Your task to perform on an android device: Show the shopping cart on walmart. Add macbook pro 13 inch to the cart on walmart Image 0: 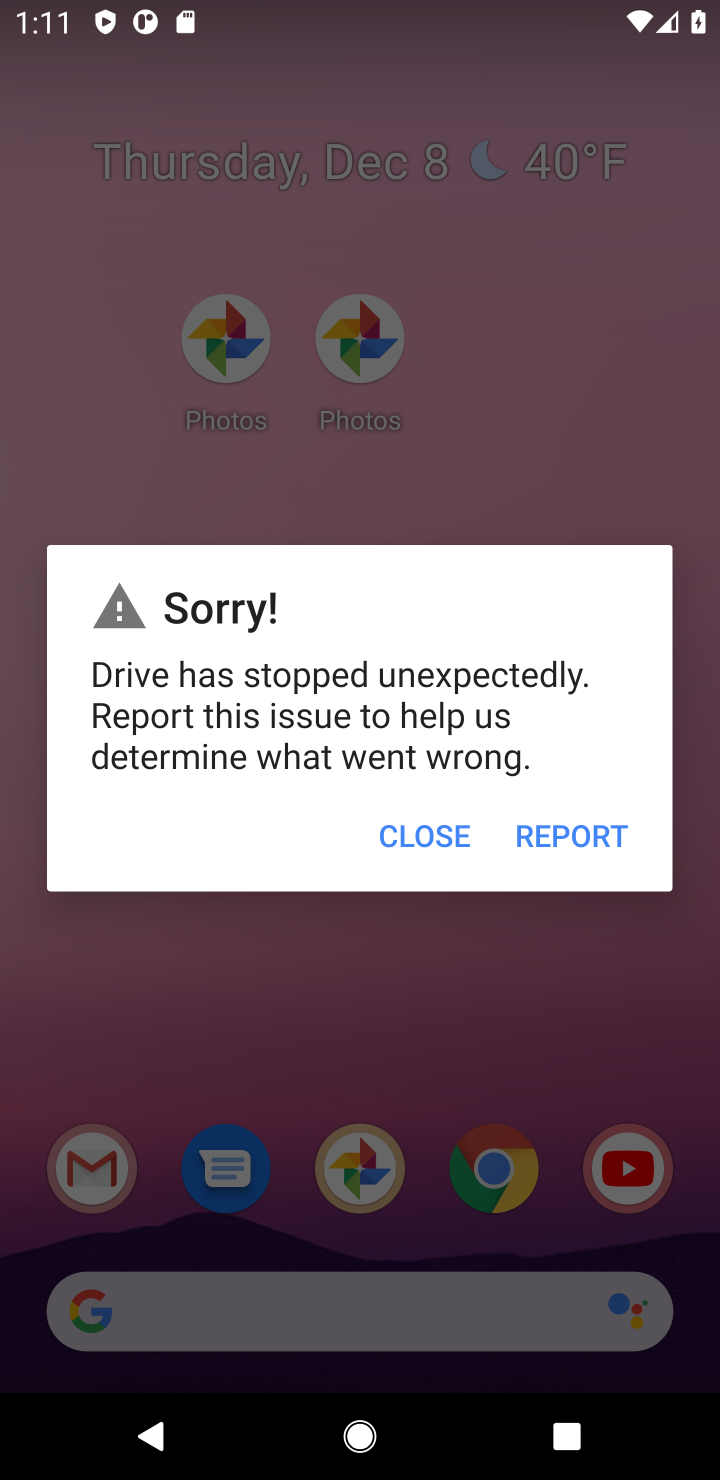
Step 0: click (416, 833)
Your task to perform on an android device: Show the shopping cart on walmart. Add macbook pro 13 inch to the cart on walmart Image 1: 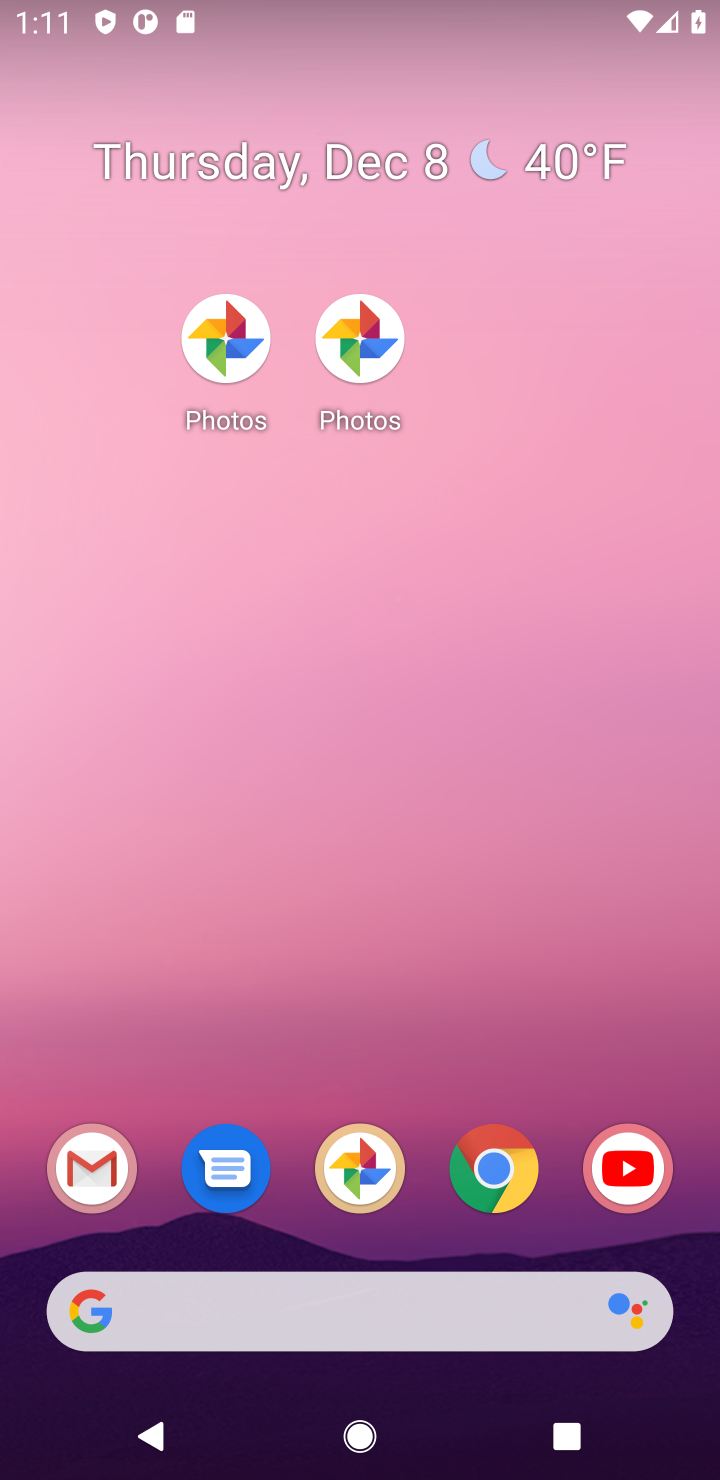
Step 1: drag from (362, 893) to (364, 310)
Your task to perform on an android device: Show the shopping cart on walmart. Add macbook pro 13 inch to the cart on walmart Image 2: 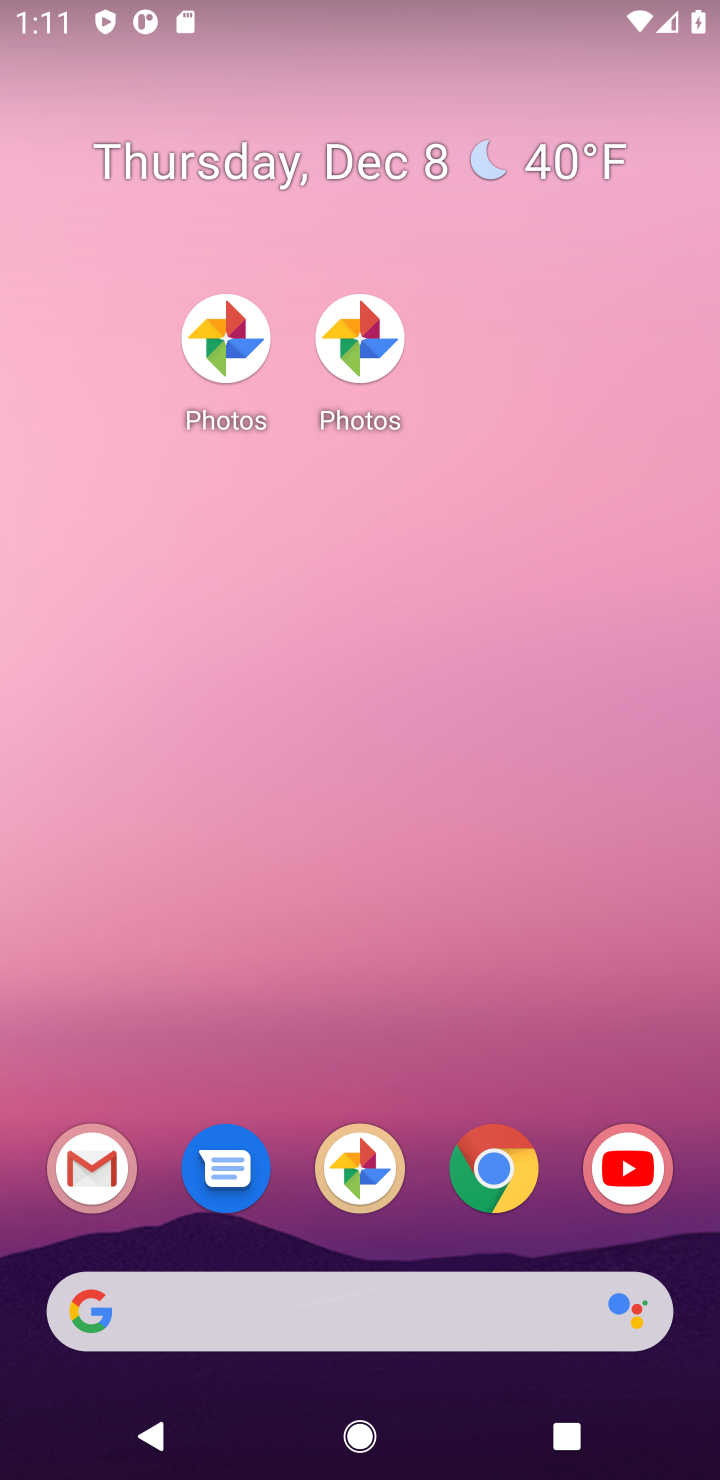
Step 2: drag from (292, 843) to (224, 299)
Your task to perform on an android device: Show the shopping cart on walmart. Add macbook pro 13 inch to the cart on walmart Image 3: 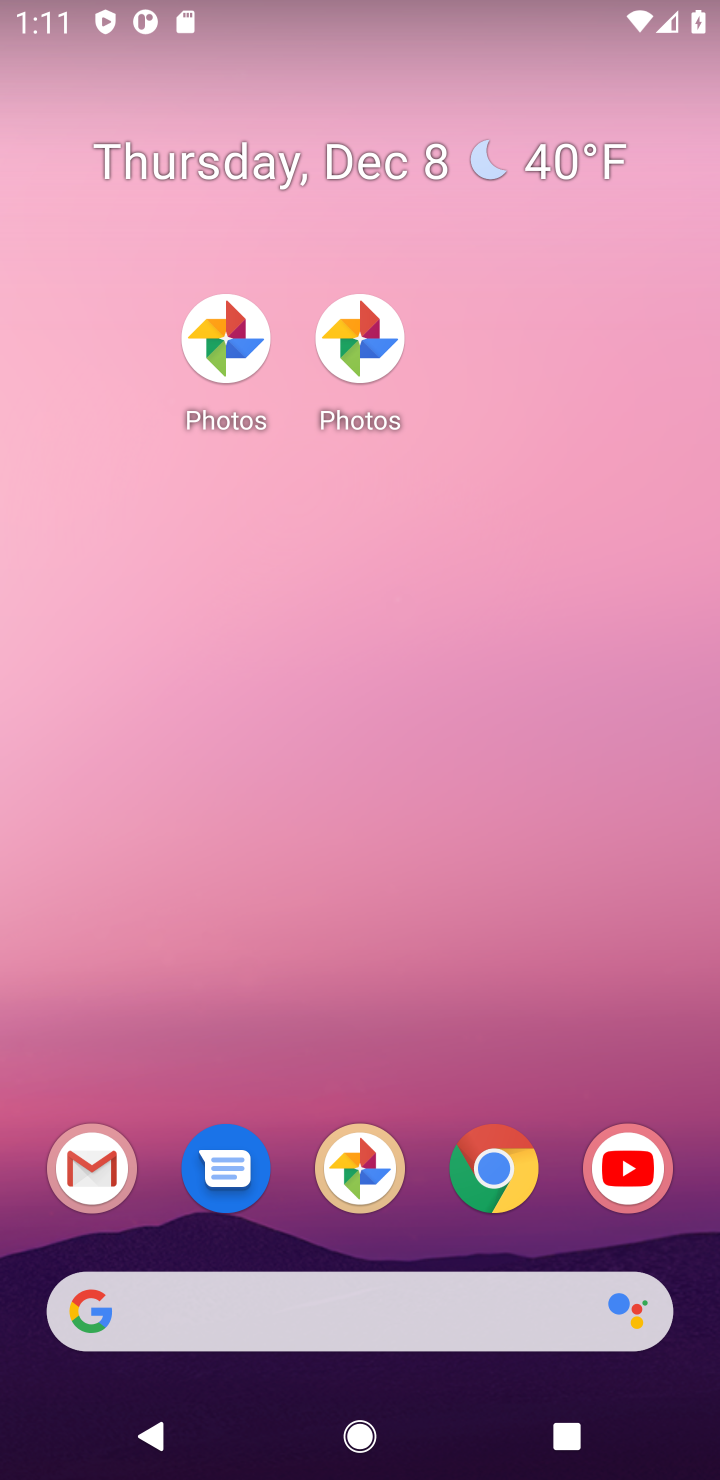
Step 3: drag from (289, 1136) to (277, 129)
Your task to perform on an android device: Show the shopping cart on walmart. Add macbook pro 13 inch to the cart on walmart Image 4: 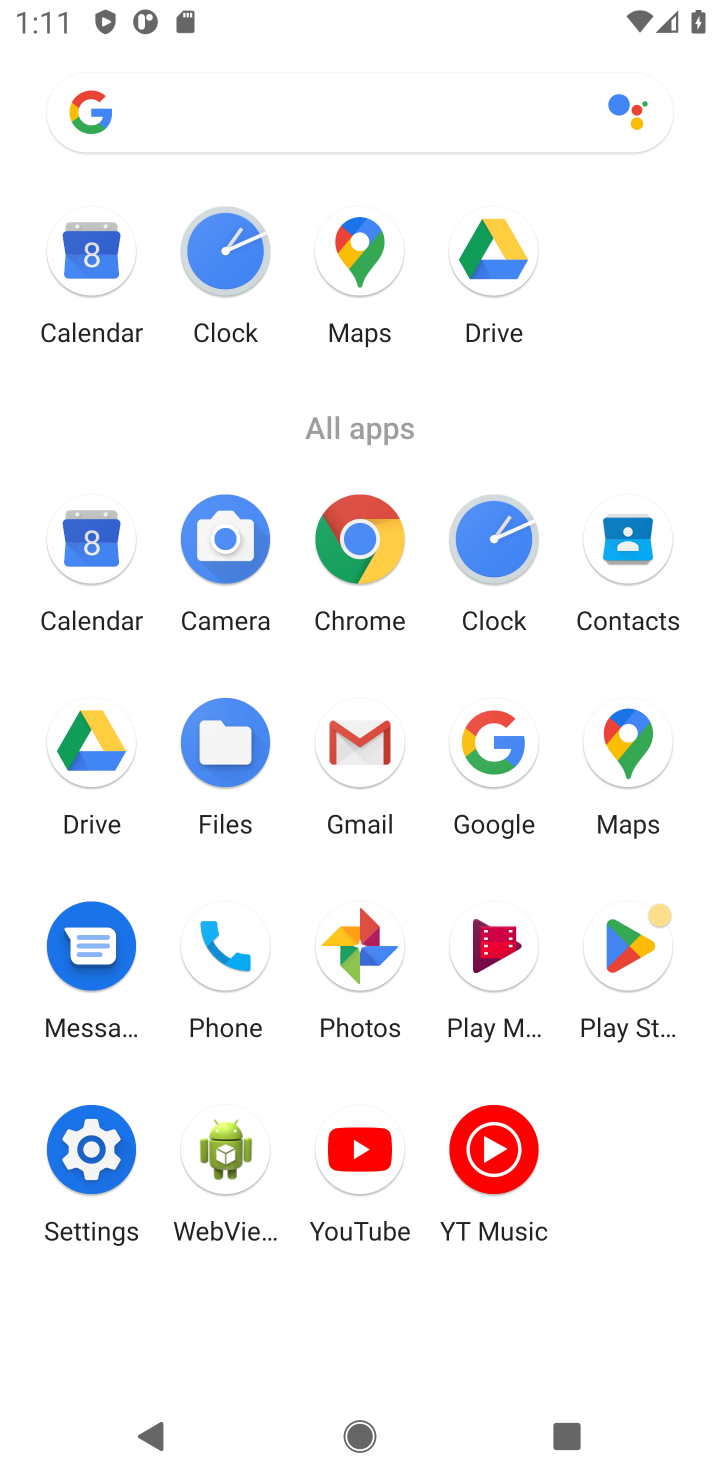
Step 4: click (496, 740)
Your task to perform on an android device: Show the shopping cart on walmart. Add macbook pro 13 inch to the cart on walmart Image 5: 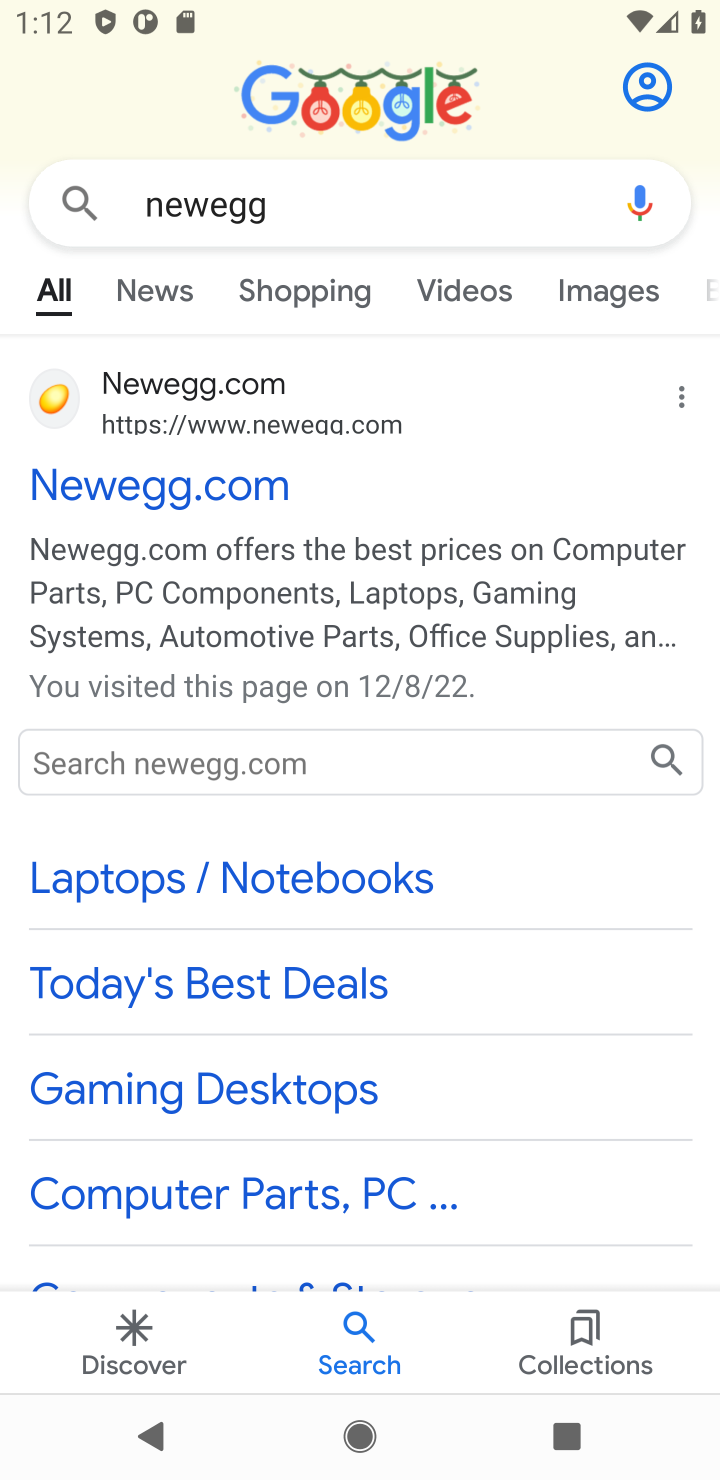
Step 5: click (206, 211)
Your task to perform on an android device: Show the shopping cart on walmart. Add macbook pro 13 inch to the cart on walmart Image 6: 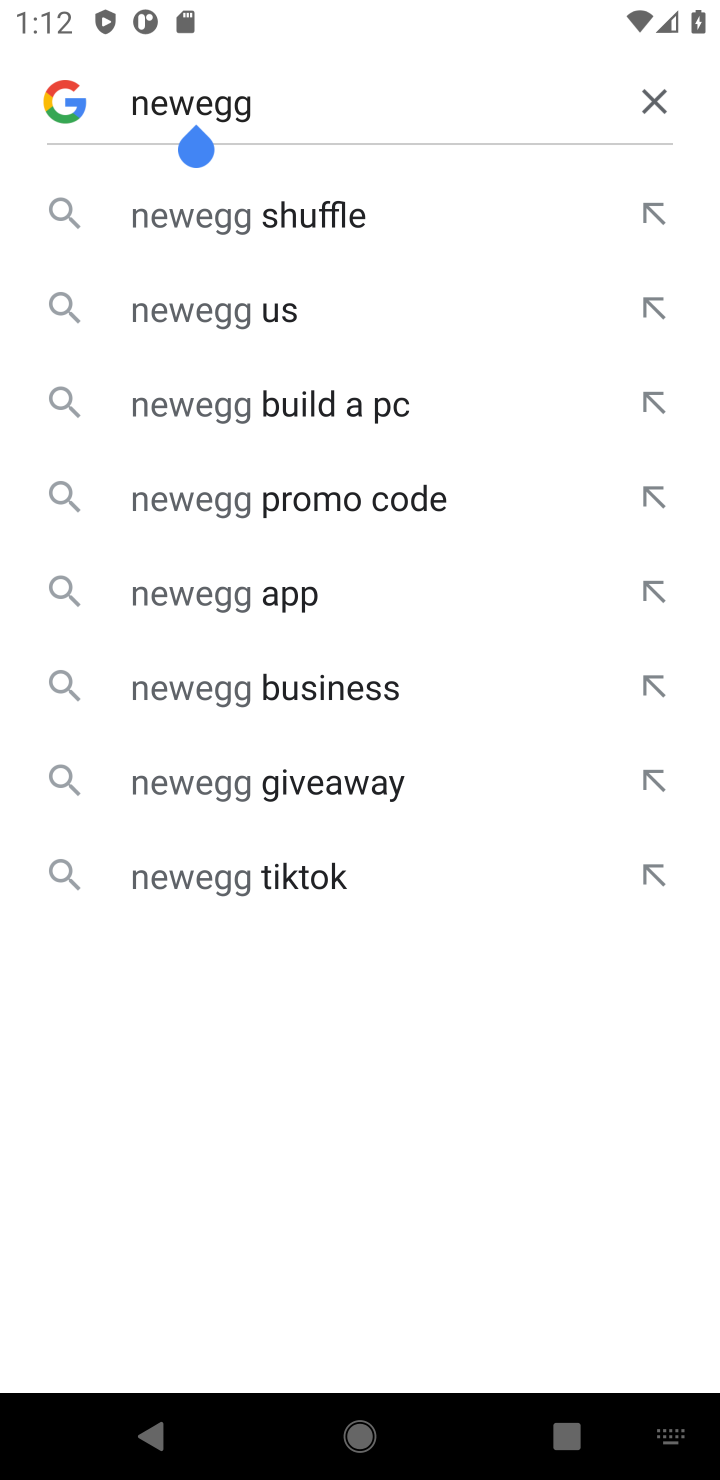
Step 6: click (642, 101)
Your task to perform on an android device: Show the shopping cart on walmart. Add macbook pro 13 inch to the cart on walmart Image 7: 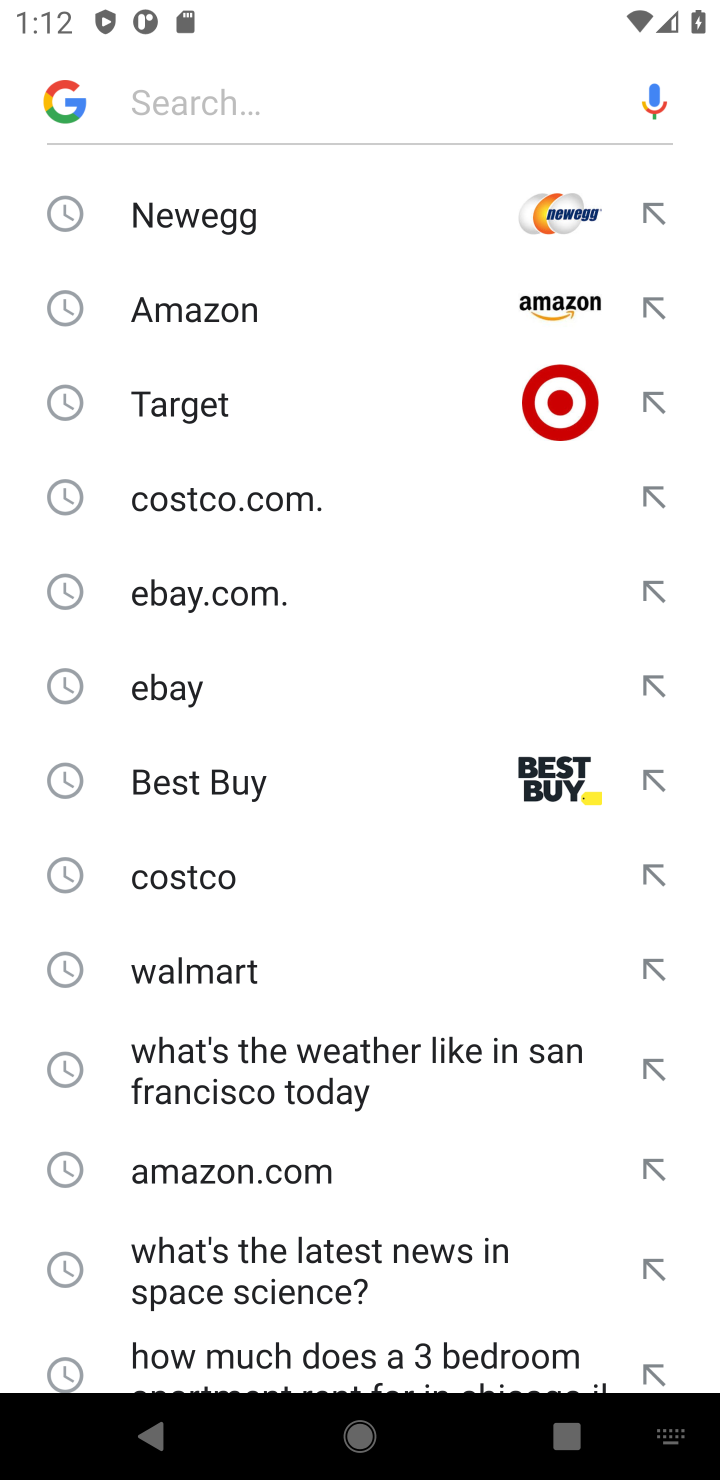
Step 7: click (222, 968)
Your task to perform on an android device: Show the shopping cart on walmart. Add macbook pro 13 inch to the cart on walmart Image 8: 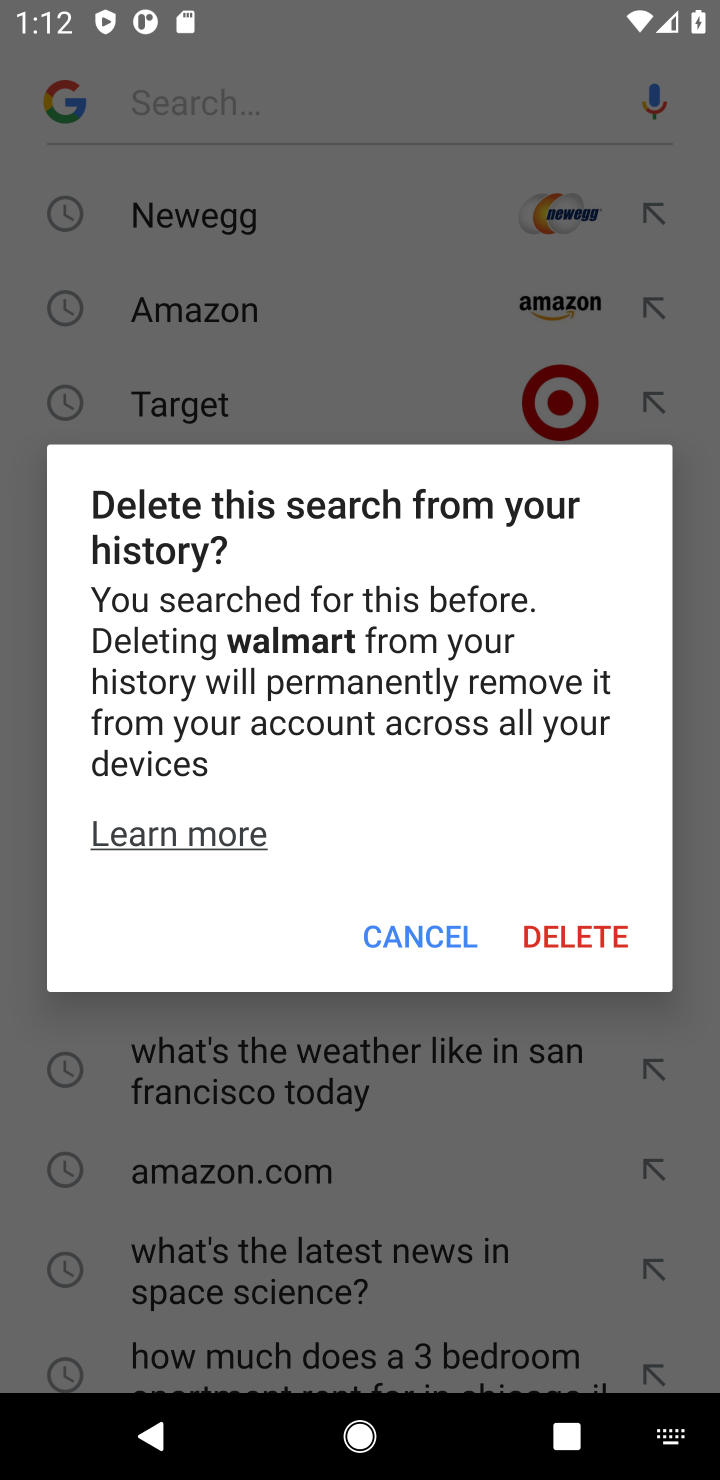
Step 8: click (381, 937)
Your task to perform on an android device: Show the shopping cart on walmart. Add macbook pro 13 inch to the cart on walmart Image 9: 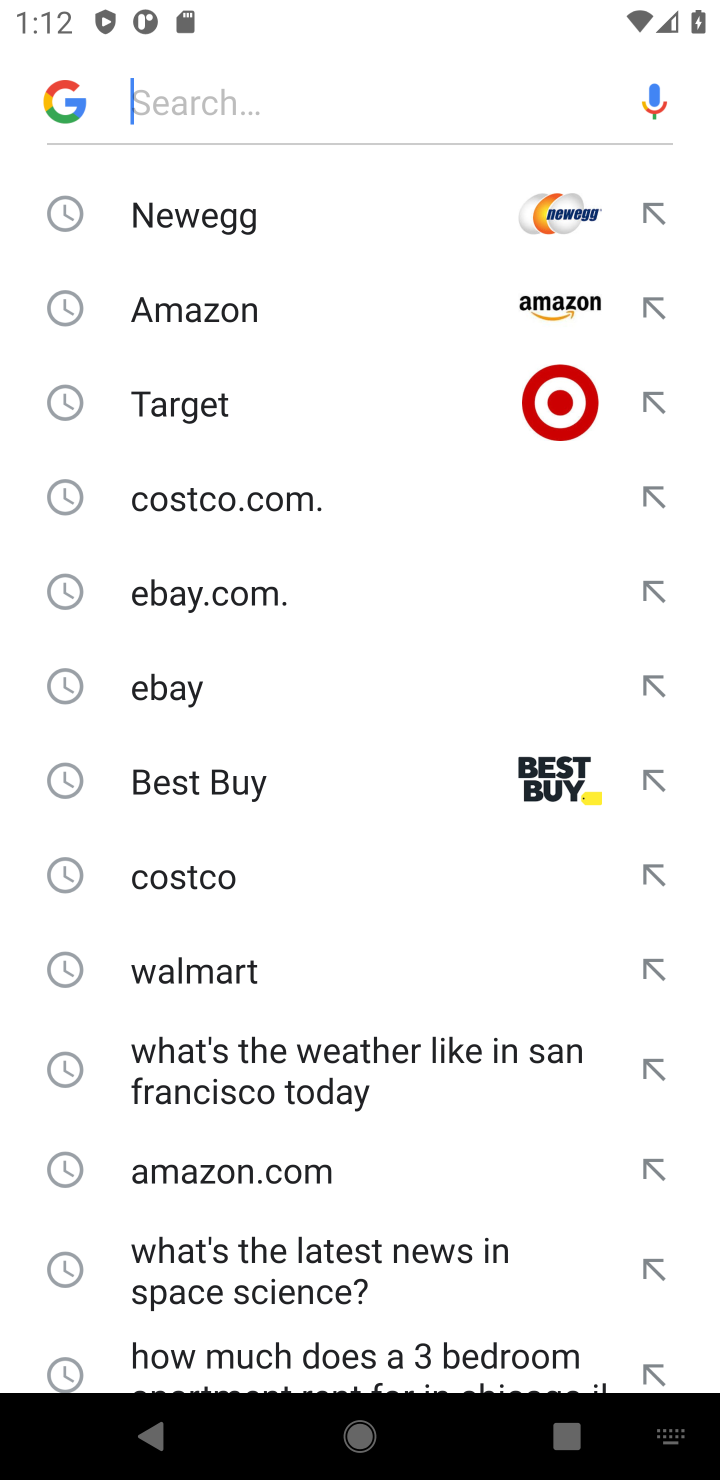
Step 9: click (239, 981)
Your task to perform on an android device: Show the shopping cart on walmart. Add macbook pro 13 inch to the cart on walmart Image 10: 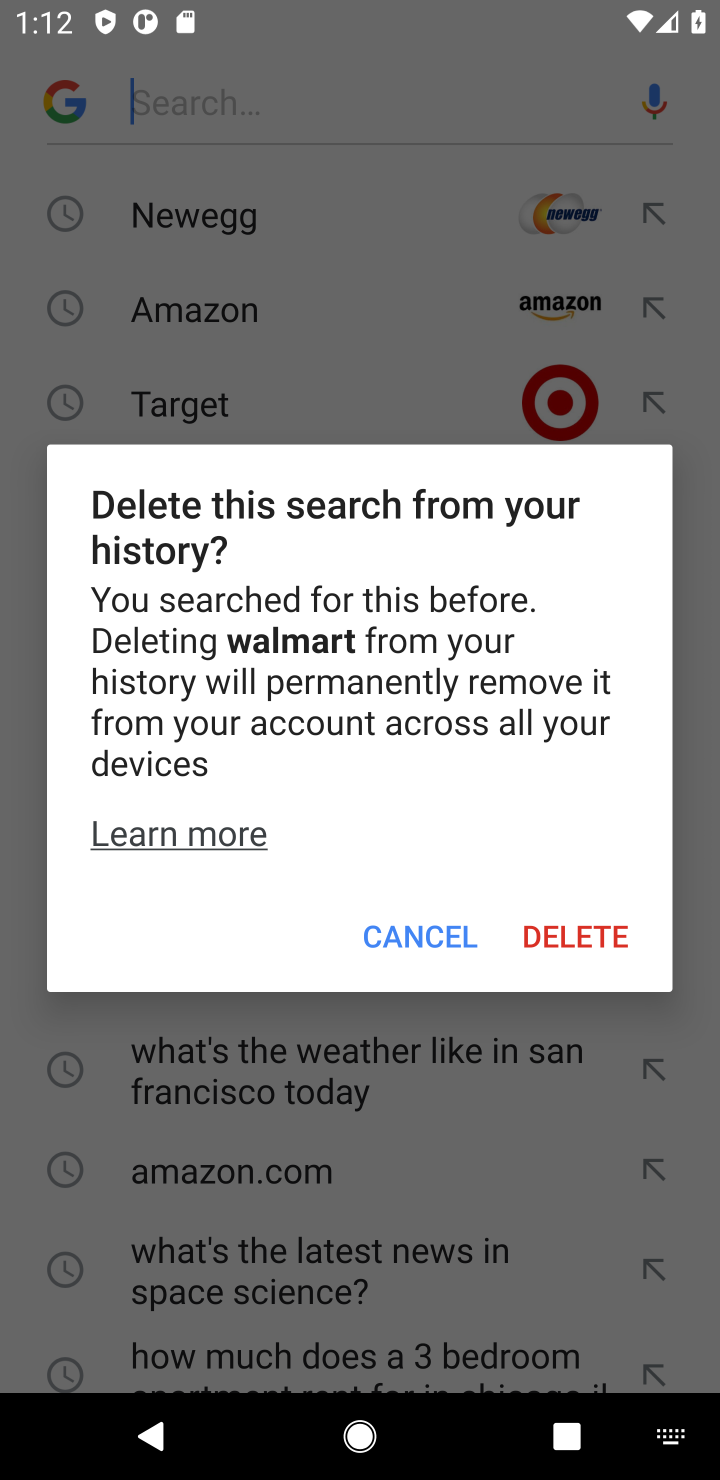
Step 10: click (442, 945)
Your task to perform on an android device: Show the shopping cart on walmart. Add macbook pro 13 inch to the cart on walmart Image 11: 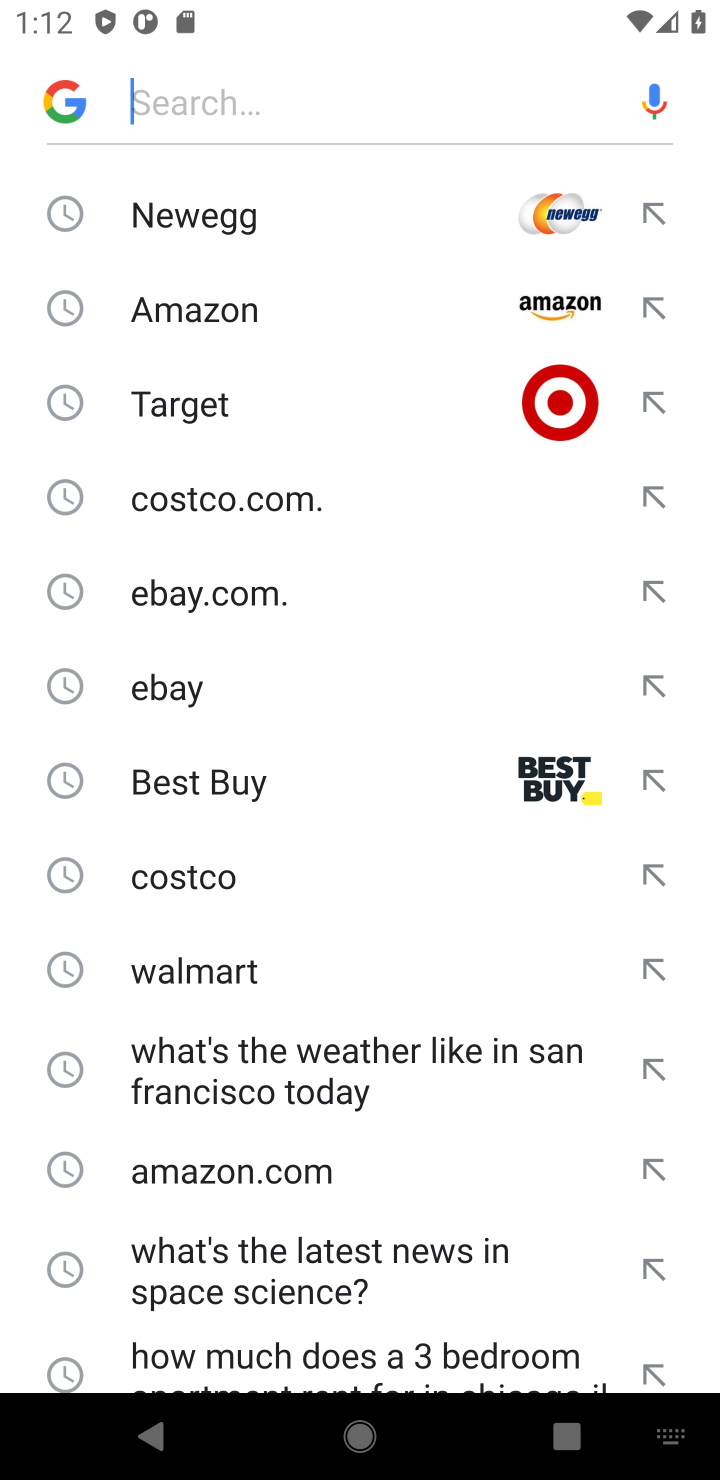
Step 11: click (646, 980)
Your task to perform on an android device: Show the shopping cart on walmart. Add macbook pro 13 inch to the cart on walmart Image 12: 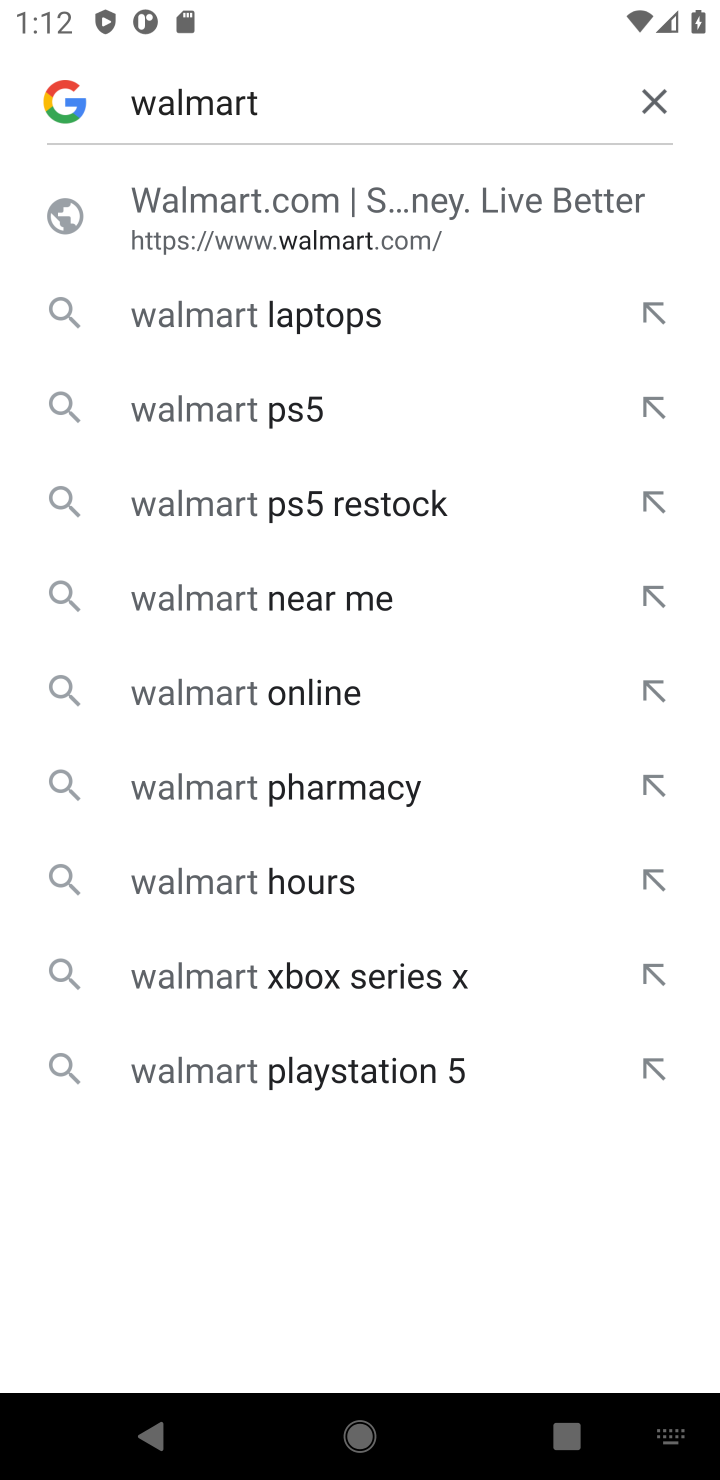
Step 12: click (230, 235)
Your task to perform on an android device: Show the shopping cart on walmart. Add macbook pro 13 inch to the cart on walmart Image 13: 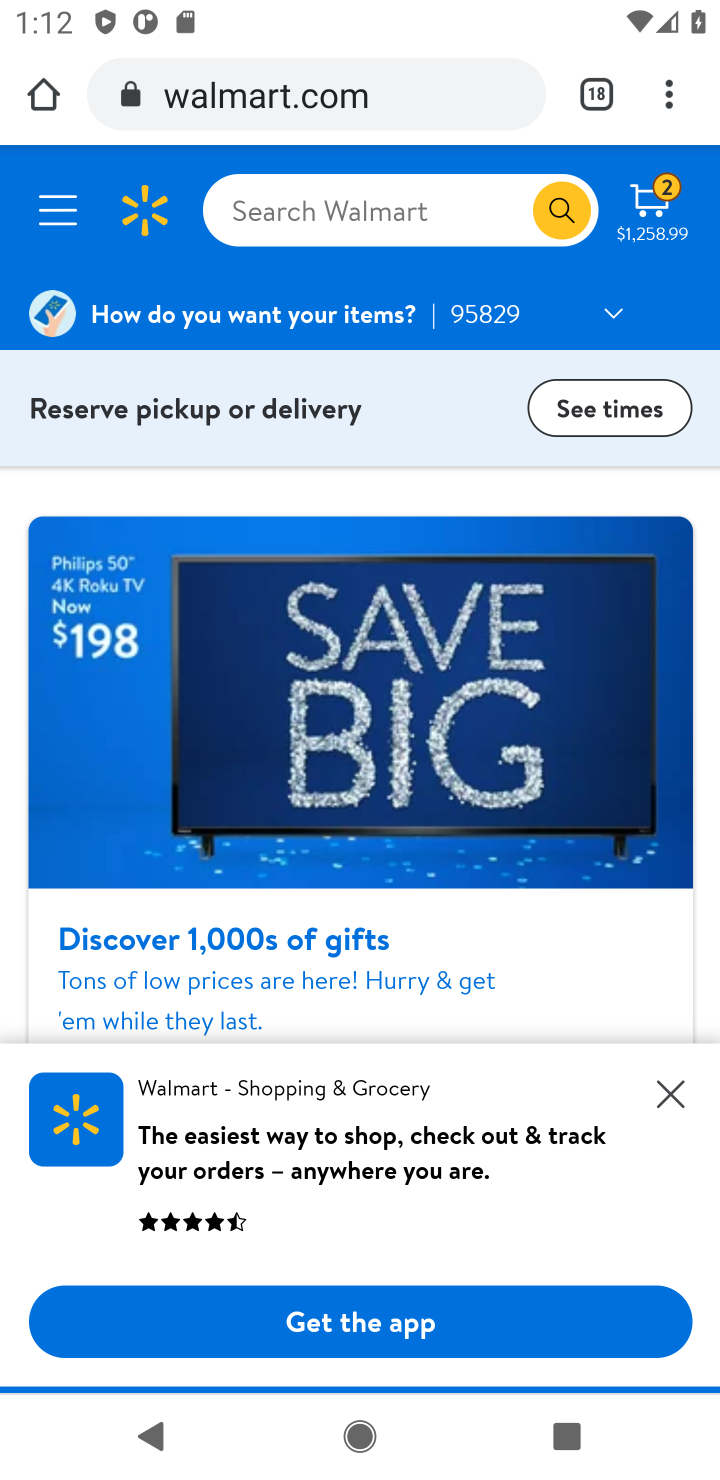
Step 13: click (271, 219)
Your task to perform on an android device: Show the shopping cart on walmart. Add macbook pro 13 inch to the cart on walmart Image 14: 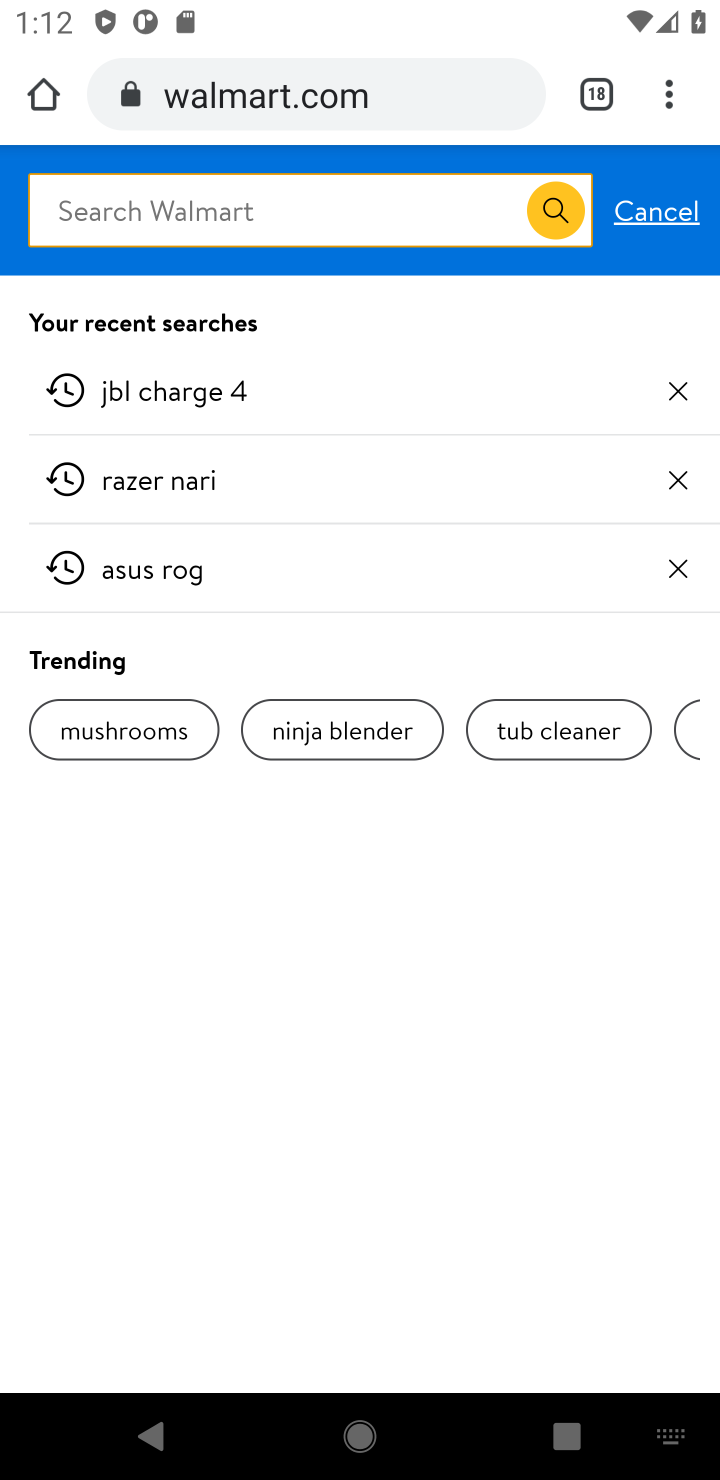
Step 14: click (133, 207)
Your task to perform on an android device: Show the shopping cart on walmart. Add macbook pro 13 inch to the cart on walmart Image 15: 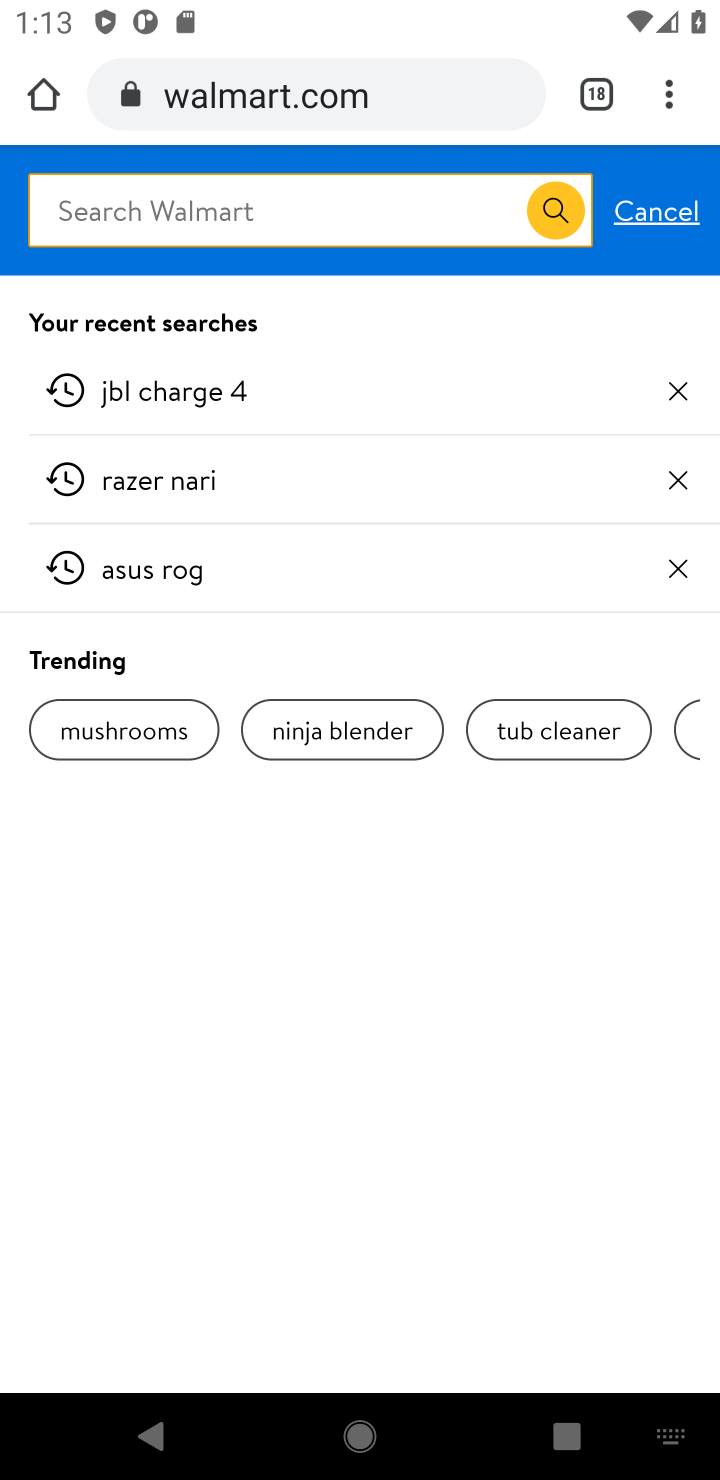
Step 15: click (548, 220)
Your task to perform on an android device: Show the shopping cart on walmart. Add macbook pro 13 inch to the cart on walmart Image 16: 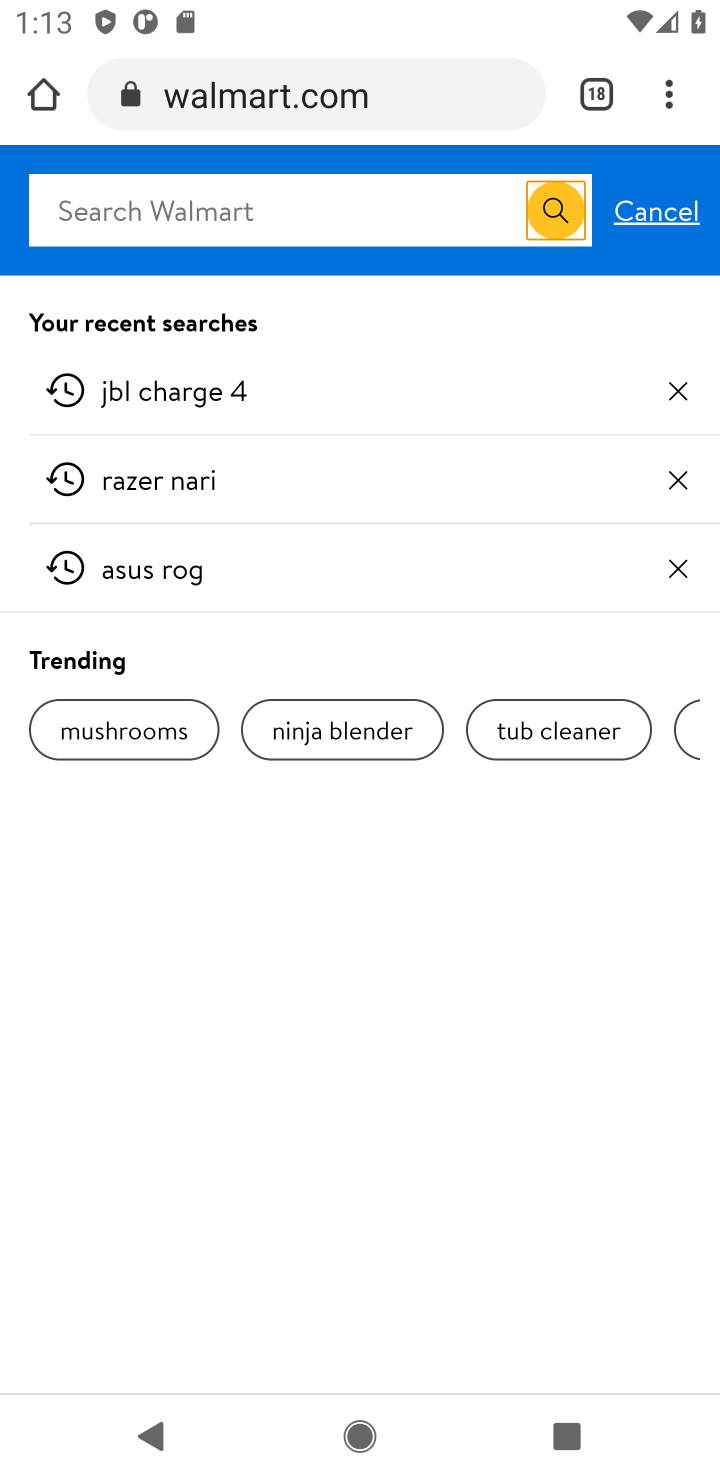
Step 16: click (222, 225)
Your task to perform on an android device: Show the shopping cart on walmart. Add macbook pro 13 inch to the cart on walmart Image 17: 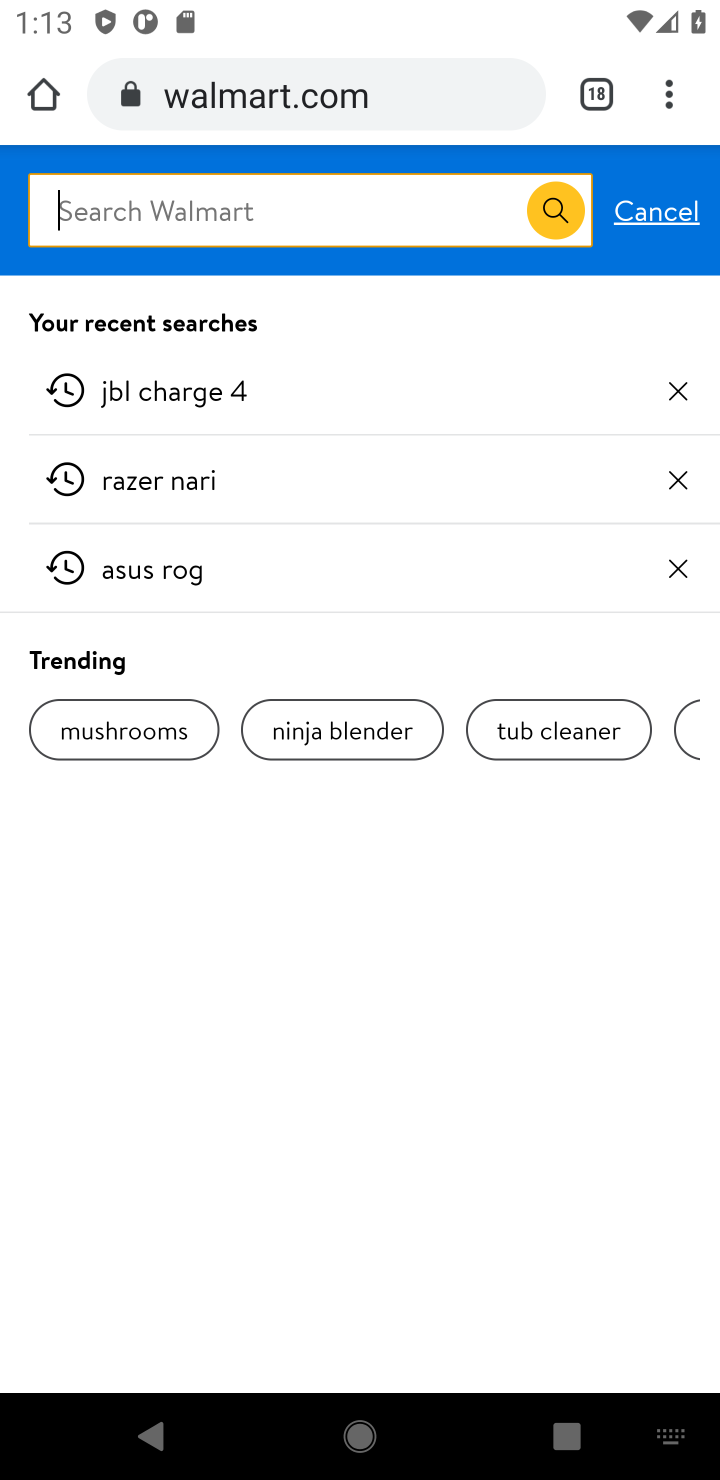
Step 17: type "macbook pro 13 inch"
Your task to perform on an android device: Show the shopping cart on walmart. Add macbook pro 13 inch to the cart on walmart Image 18: 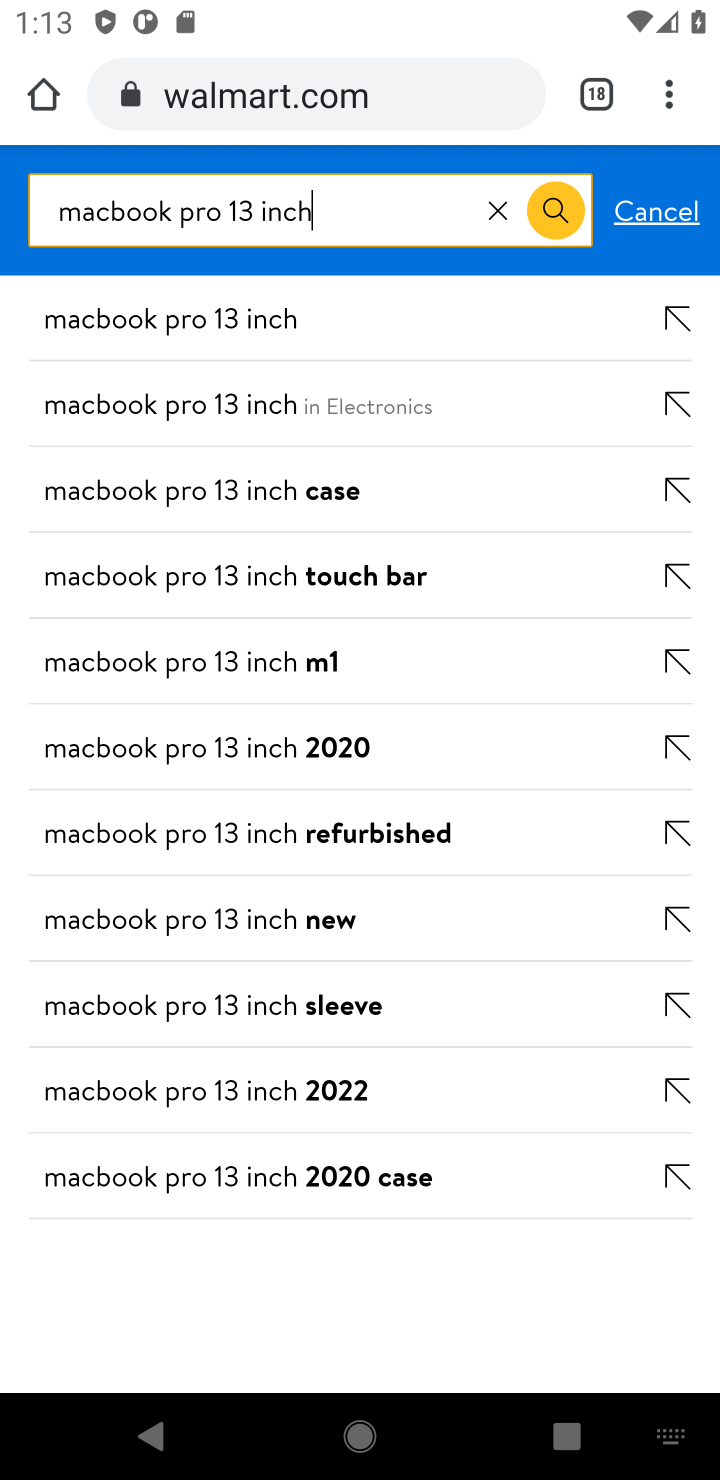
Step 18: click (169, 318)
Your task to perform on an android device: Show the shopping cart on walmart. Add macbook pro 13 inch to the cart on walmart Image 19: 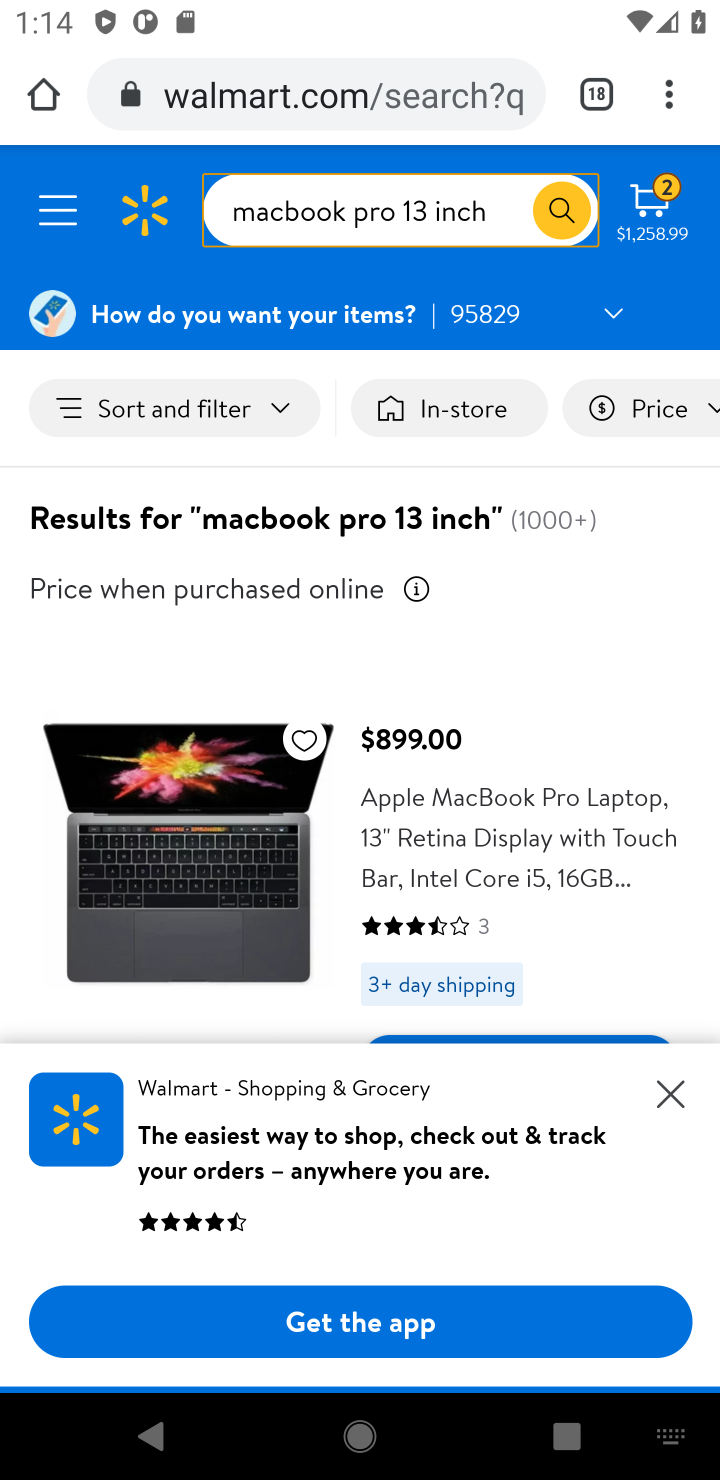
Step 19: click (666, 1095)
Your task to perform on an android device: Show the shopping cart on walmart. Add macbook pro 13 inch to the cart on walmart Image 20: 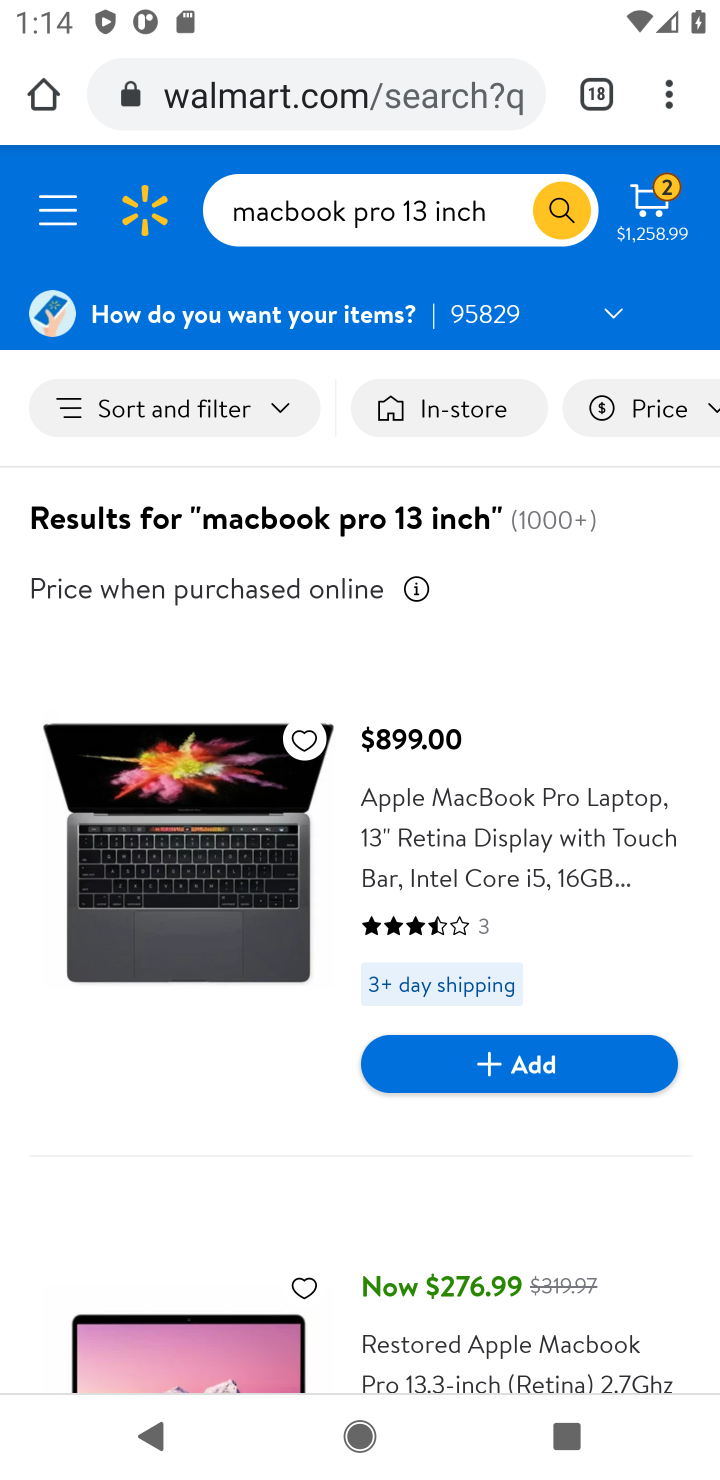
Step 20: click (565, 1070)
Your task to perform on an android device: Show the shopping cart on walmart. Add macbook pro 13 inch to the cart on walmart Image 21: 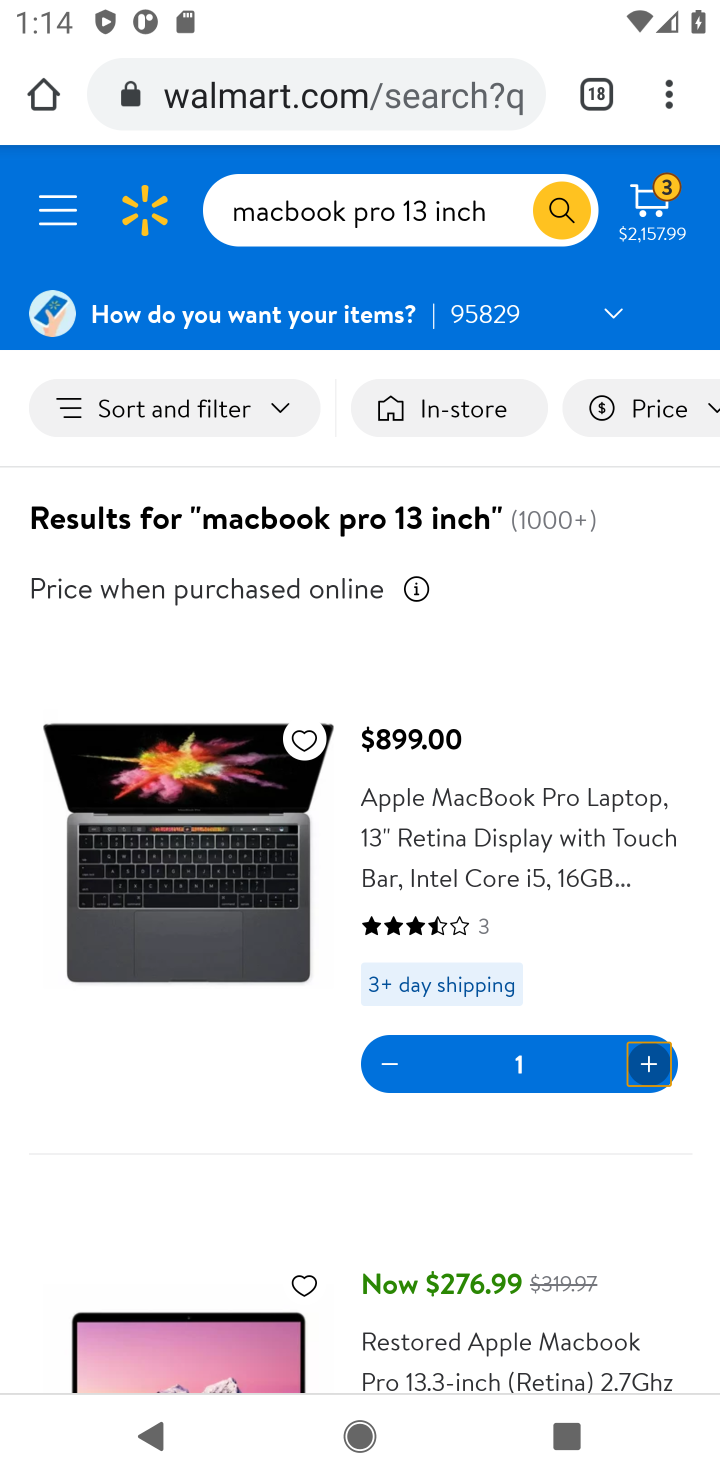
Step 21: task complete